Your task to perform on an android device: open app "Spotify: Music and Podcasts" (install if not already installed) and enter user name: "principled@inbox.com" and password: "arrests" Image 0: 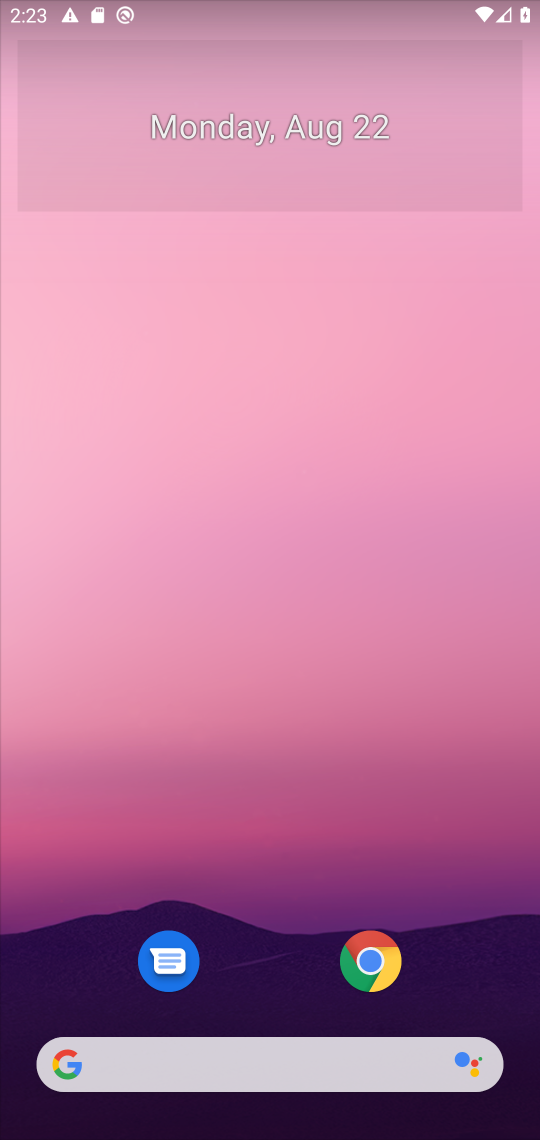
Step 0: press home button
Your task to perform on an android device: open app "Spotify: Music and Podcasts" (install if not already installed) and enter user name: "principled@inbox.com" and password: "arrests" Image 1: 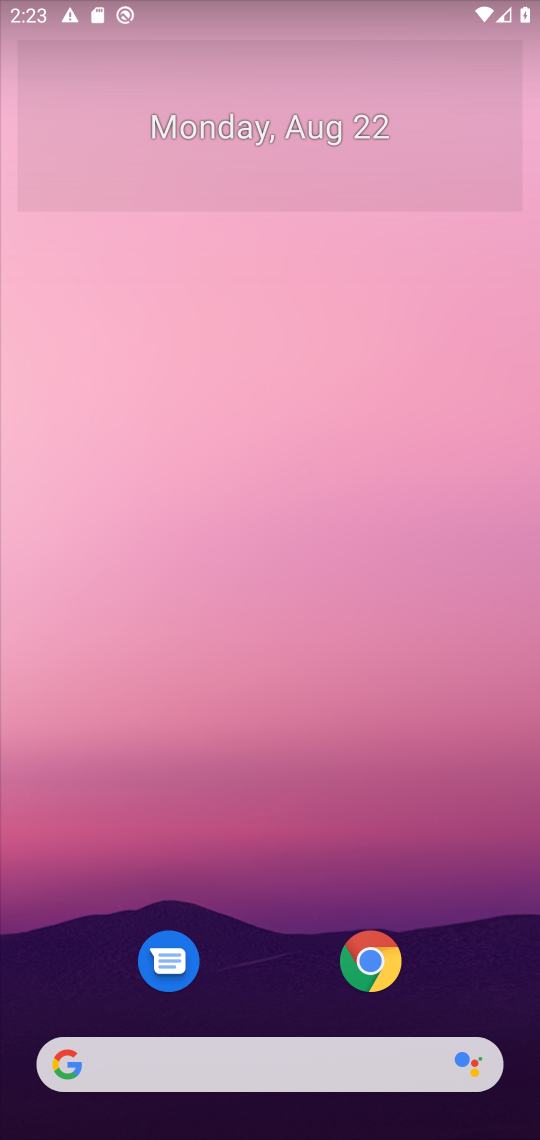
Step 1: drag from (447, 845) to (447, 61)
Your task to perform on an android device: open app "Spotify: Music and Podcasts" (install if not already installed) and enter user name: "principled@inbox.com" and password: "arrests" Image 2: 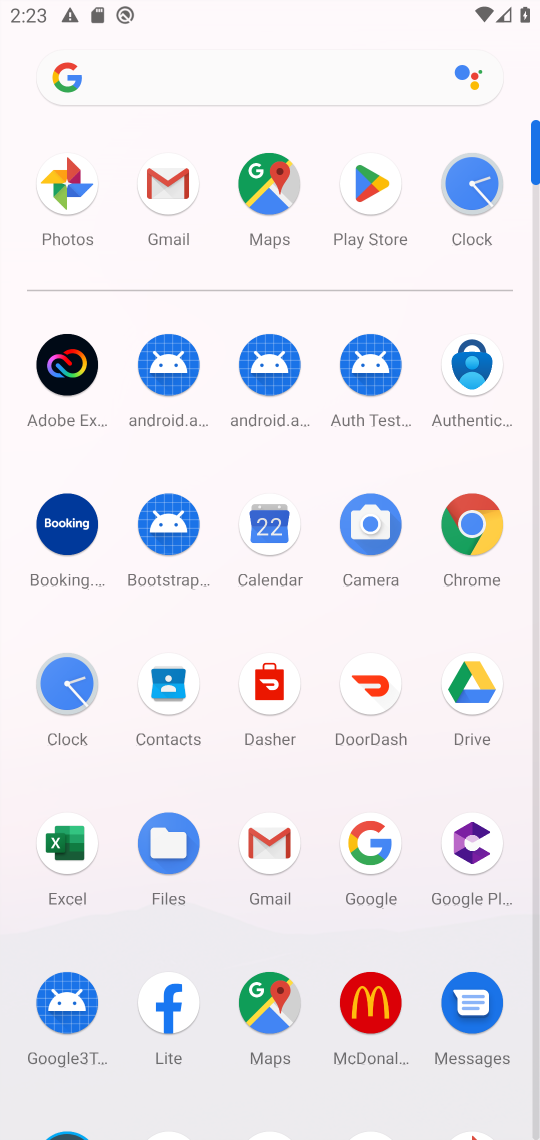
Step 2: click (372, 190)
Your task to perform on an android device: open app "Spotify: Music and Podcasts" (install if not already installed) and enter user name: "principled@inbox.com" and password: "arrests" Image 3: 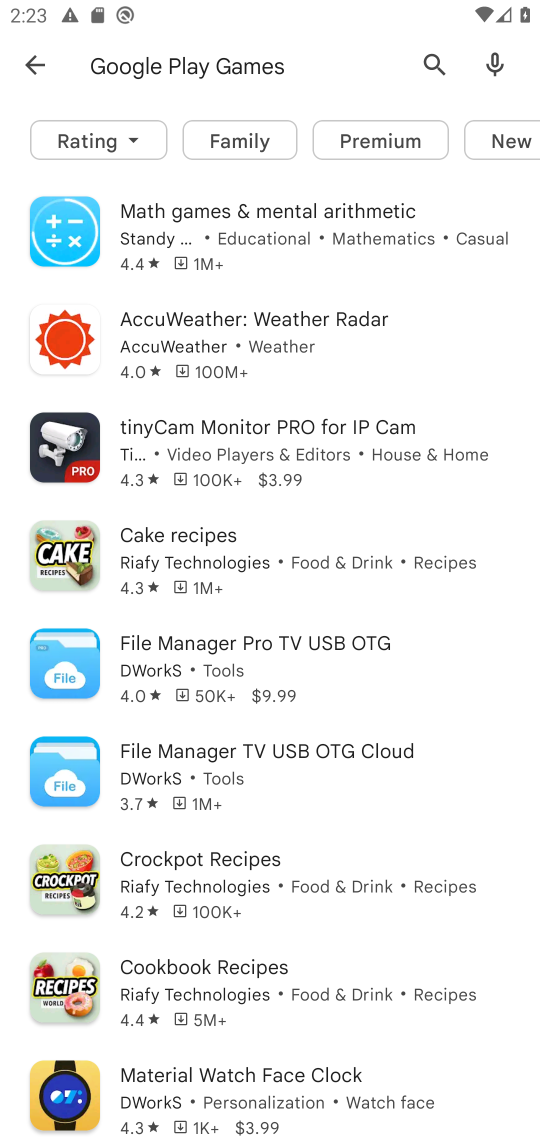
Step 3: press back button
Your task to perform on an android device: open app "Spotify: Music and Podcasts" (install if not already installed) and enter user name: "principled@inbox.com" and password: "arrests" Image 4: 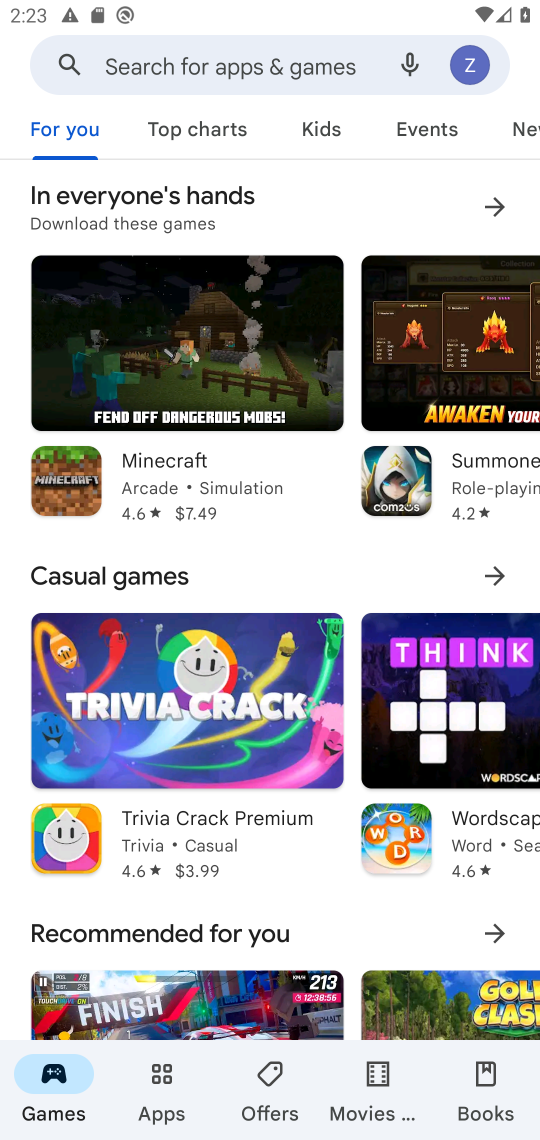
Step 4: click (337, 50)
Your task to perform on an android device: open app "Spotify: Music and Podcasts" (install if not already installed) and enter user name: "principled@inbox.com" and password: "arrests" Image 5: 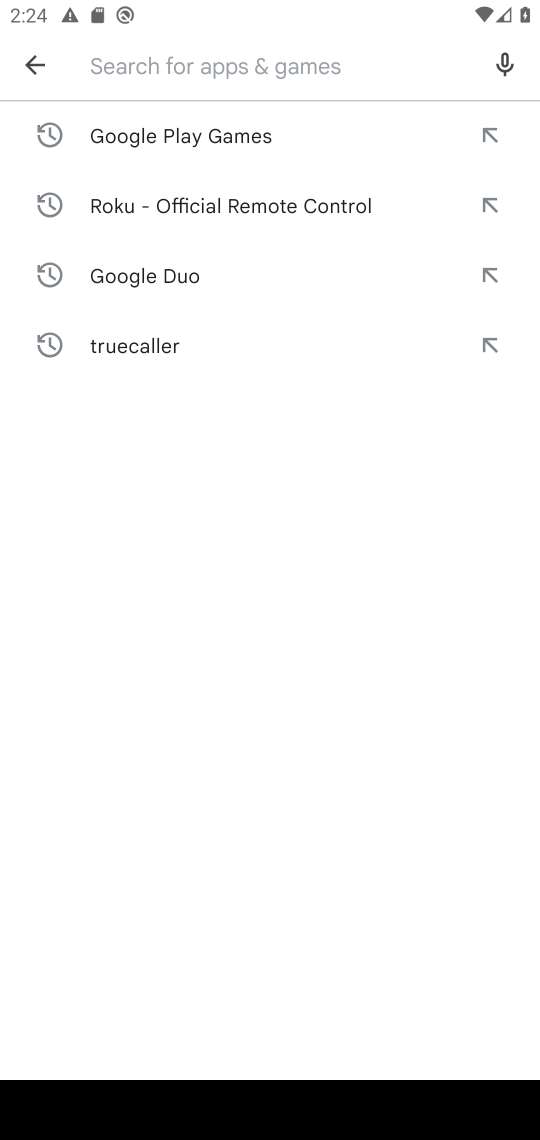
Step 5: type "Spotify: Music and Podcasts"
Your task to perform on an android device: open app "Spotify: Music and Podcasts" (install if not already installed) and enter user name: "principled@inbox.com" and password: "arrests" Image 6: 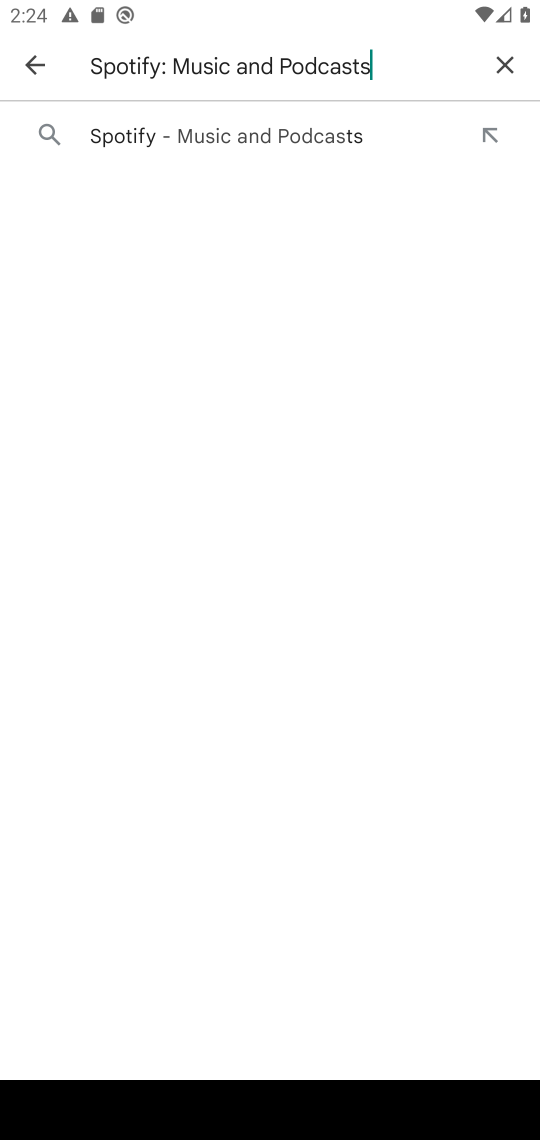
Step 6: press enter
Your task to perform on an android device: open app "Spotify: Music and Podcasts" (install if not already installed) and enter user name: "principled@inbox.com" and password: "arrests" Image 7: 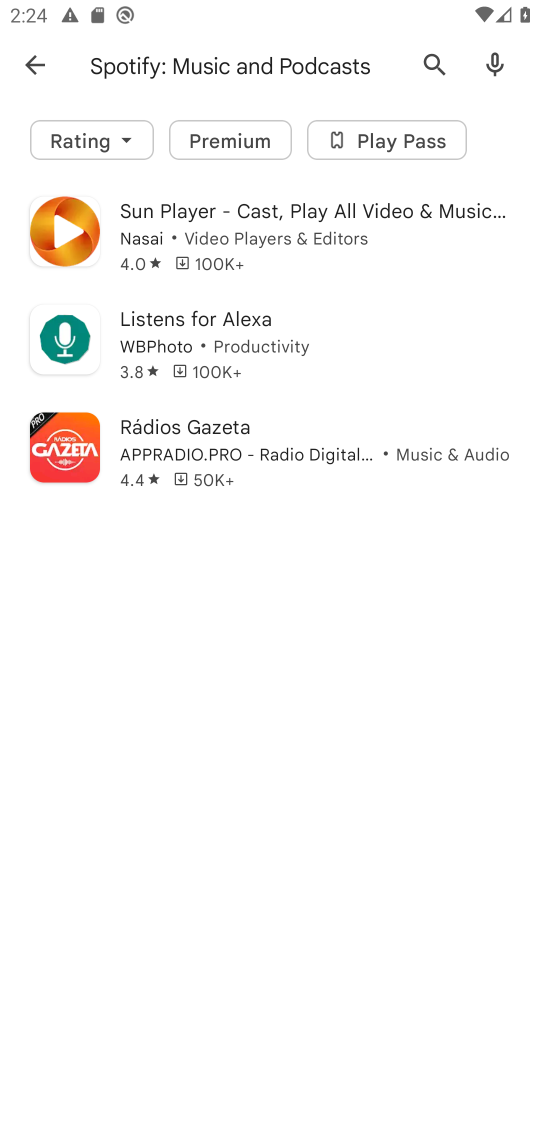
Step 7: task complete